Your task to perform on an android device: change notification settings in the gmail app Image 0: 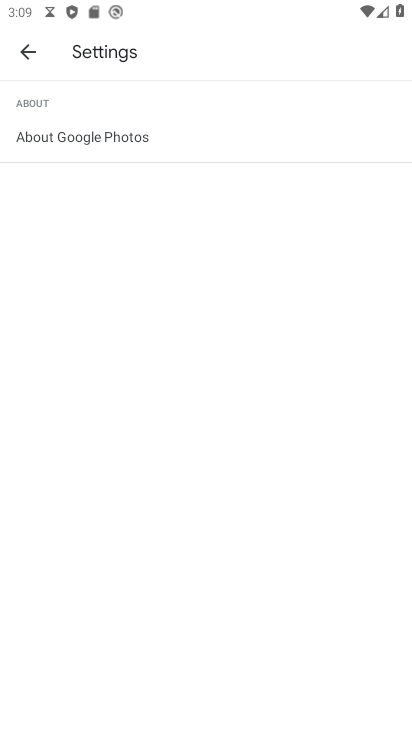
Step 0: press home button
Your task to perform on an android device: change notification settings in the gmail app Image 1: 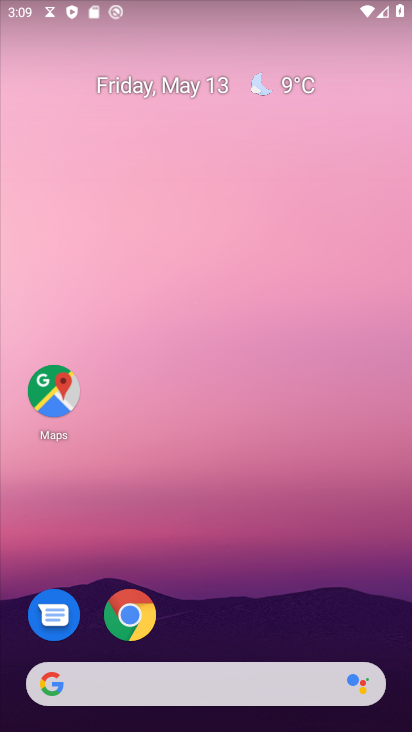
Step 1: drag from (232, 636) to (233, 122)
Your task to perform on an android device: change notification settings in the gmail app Image 2: 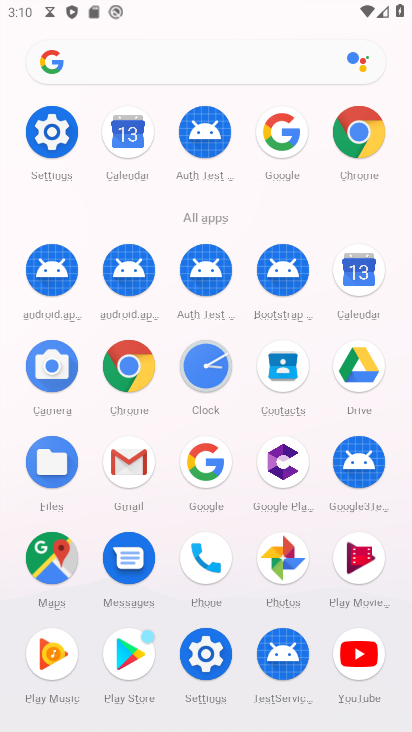
Step 2: click (129, 454)
Your task to perform on an android device: change notification settings in the gmail app Image 3: 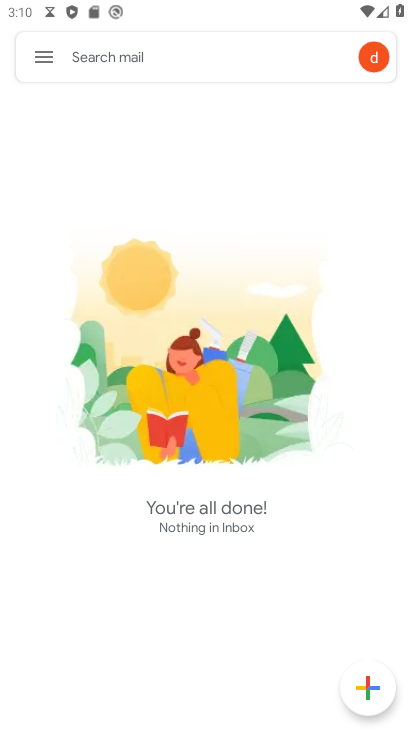
Step 3: click (45, 56)
Your task to perform on an android device: change notification settings in the gmail app Image 4: 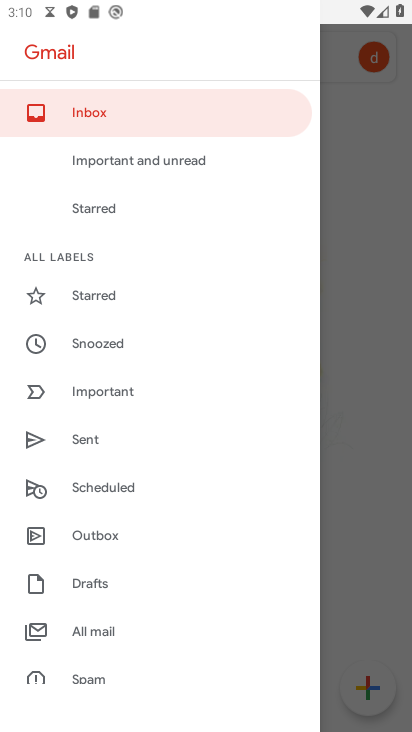
Step 4: drag from (94, 666) to (108, 291)
Your task to perform on an android device: change notification settings in the gmail app Image 5: 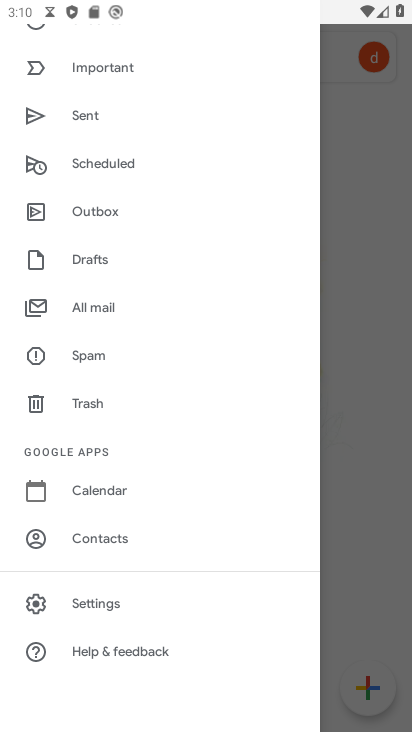
Step 5: click (100, 600)
Your task to perform on an android device: change notification settings in the gmail app Image 6: 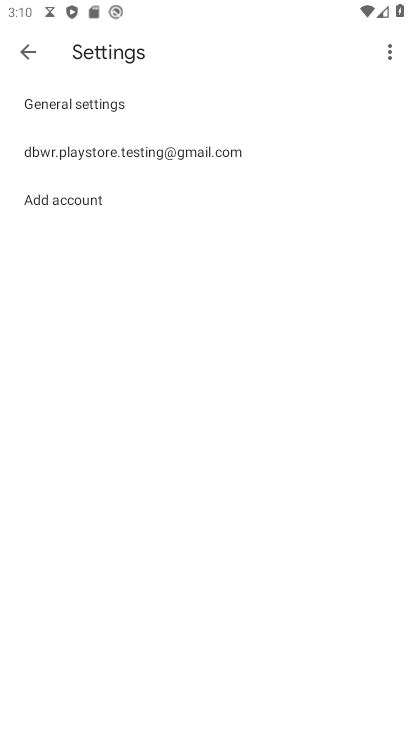
Step 6: click (180, 150)
Your task to perform on an android device: change notification settings in the gmail app Image 7: 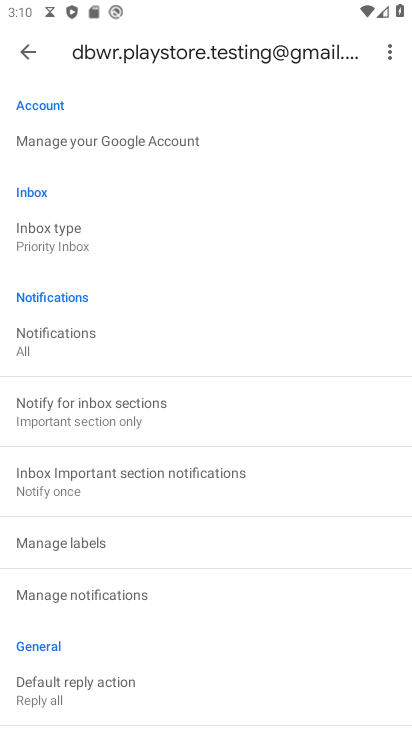
Step 7: drag from (162, 635) to (170, 490)
Your task to perform on an android device: change notification settings in the gmail app Image 8: 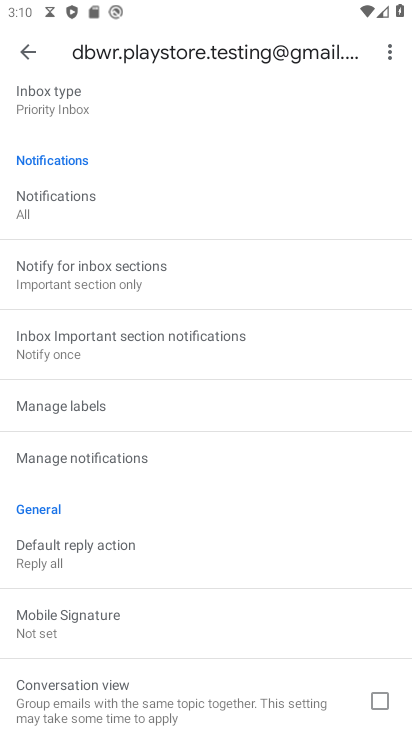
Step 8: click (61, 200)
Your task to perform on an android device: change notification settings in the gmail app Image 9: 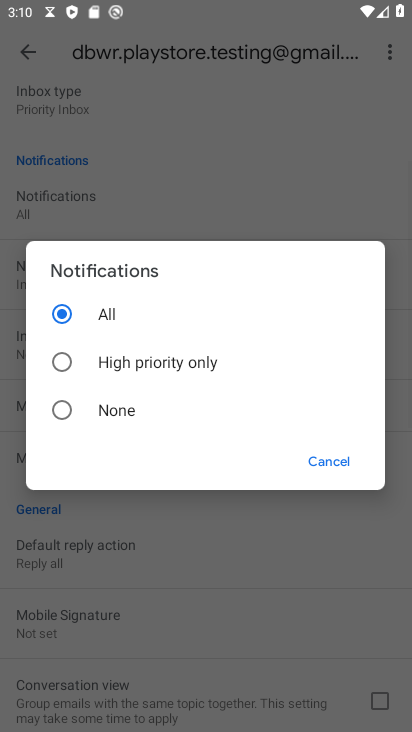
Step 9: click (64, 409)
Your task to perform on an android device: change notification settings in the gmail app Image 10: 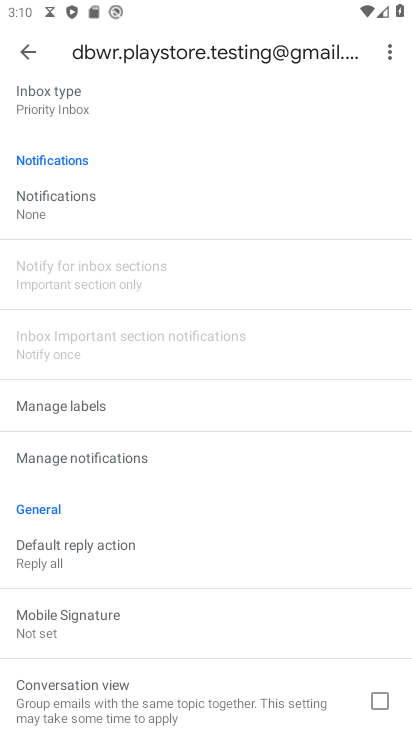
Step 10: task complete